Your task to perform on an android device: turn off airplane mode Image 0: 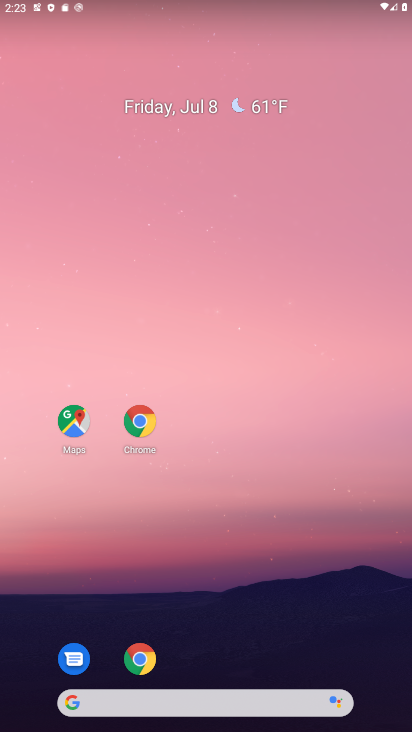
Step 0: drag from (227, 668) to (275, 310)
Your task to perform on an android device: turn off airplane mode Image 1: 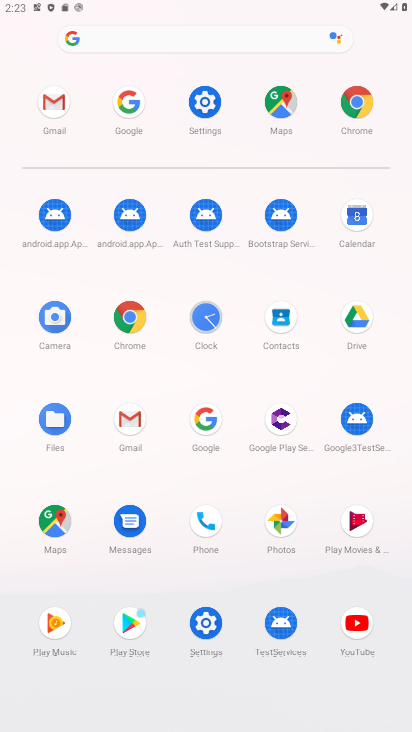
Step 1: click (201, 93)
Your task to perform on an android device: turn off airplane mode Image 2: 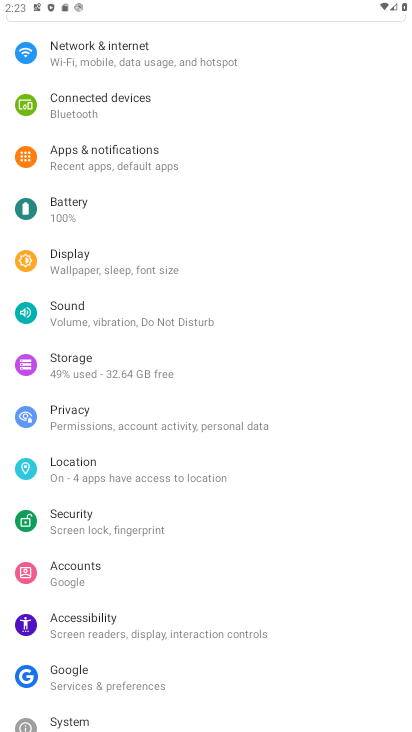
Step 2: click (195, 64)
Your task to perform on an android device: turn off airplane mode Image 3: 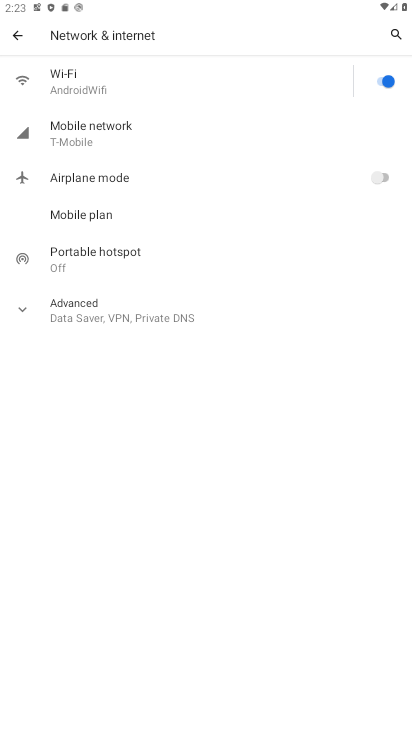
Step 3: click (371, 75)
Your task to perform on an android device: turn off airplane mode Image 4: 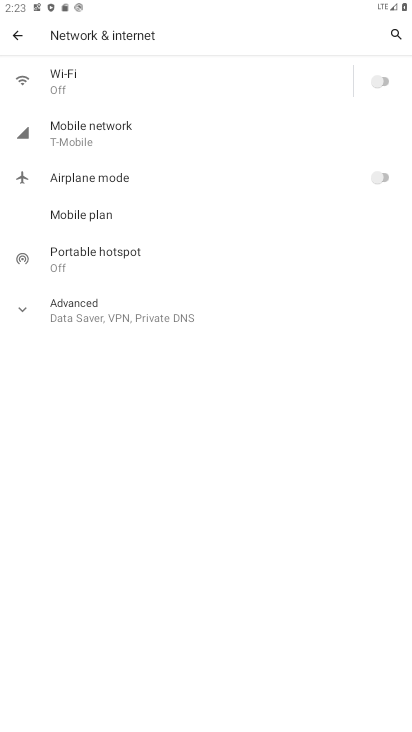
Step 4: task complete